Your task to perform on an android device: Go to Yahoo.com Image 0: 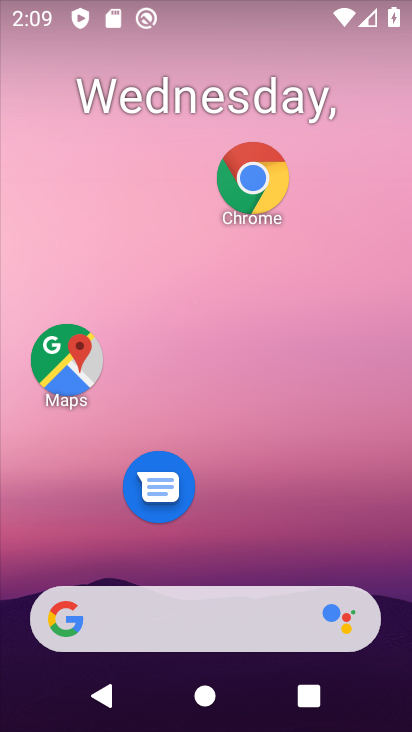
Step 0: click (244, 177)
Your task to perform on an android device: Go to Yahoo.com Image 1: 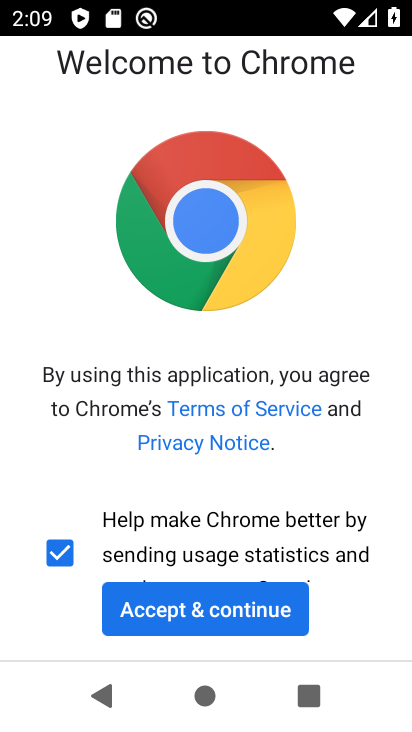
Step 1: click (169, 617)
Your task to perform on an android device: Go to Yahoo.com Image 2: 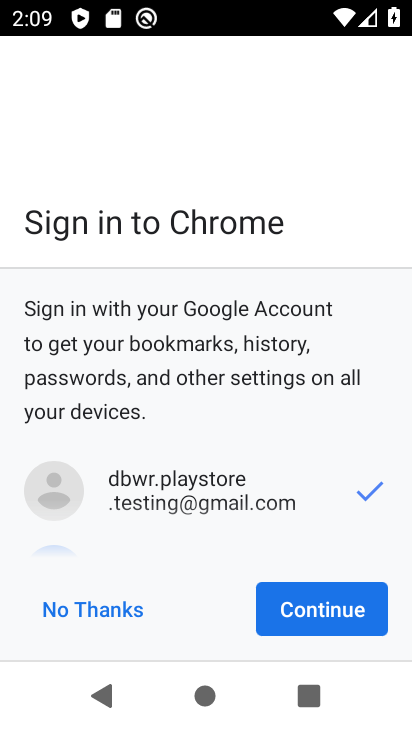
Step 2: click (311, 618)
Your task to perform on an android device: Go to Yahoo.com Image 3: 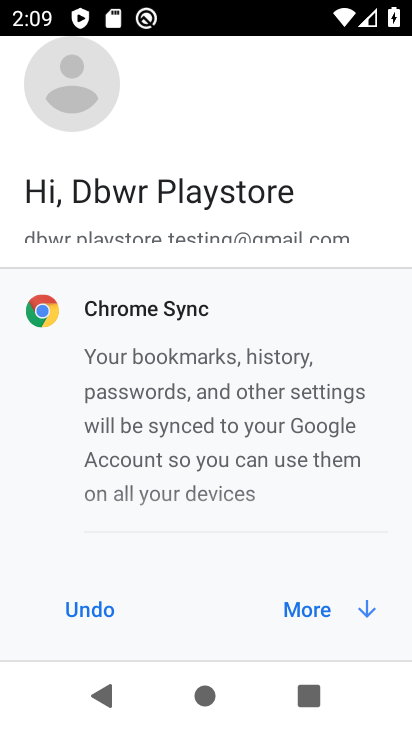
Step 3: click (301, 597)
Your task to perform on an android device: Go to Yahoo.com Image 4: 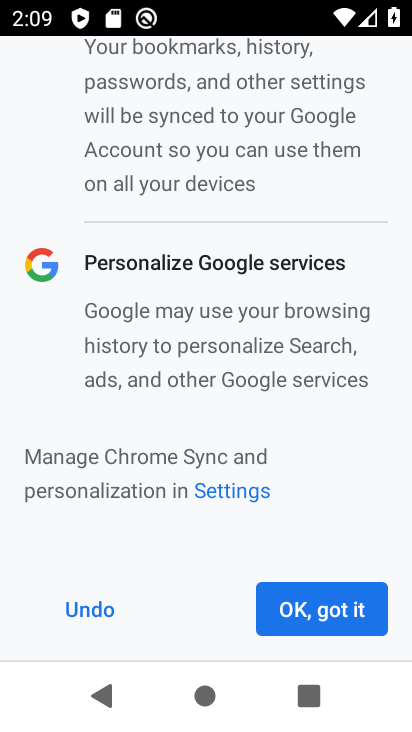
Step 4: click (301, 597)
Your task to perform on an android device: Go to Yahoo.com Image 5: 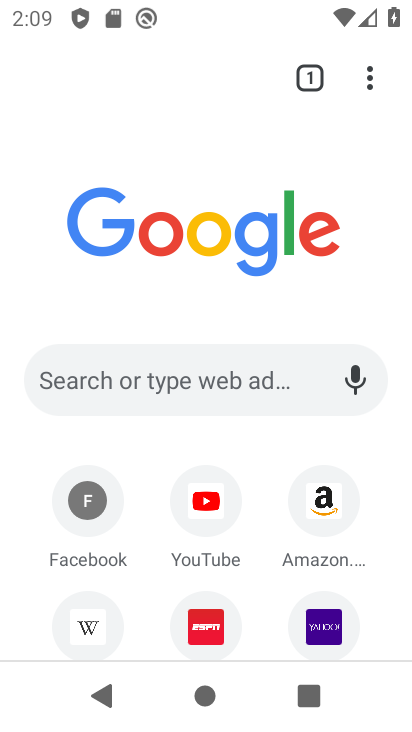
Step 5: click (188, 373)
Your task to perform on an android device: Go to Yahoo.com Image 6: 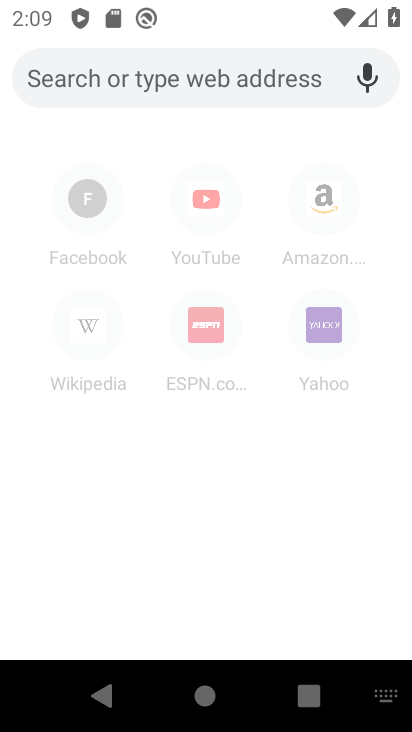
Step 6: type "yahoo.com"
Your task to perform on an android device: Go to Yahoo.com Image 7: 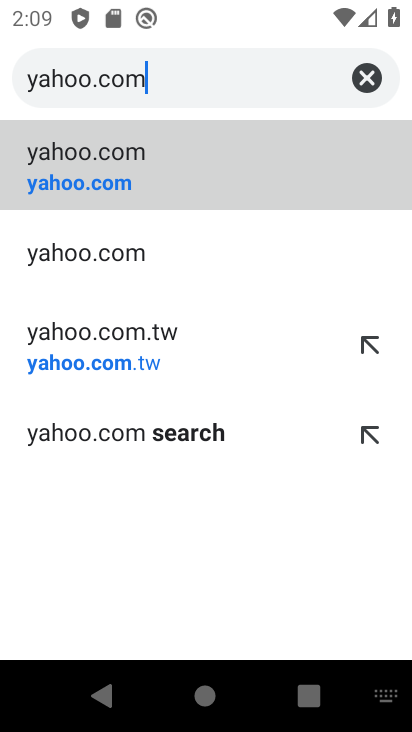
Step 7: click (90, 158)
Your task to perform on an android device: Go to Yahoo.com Image 8: 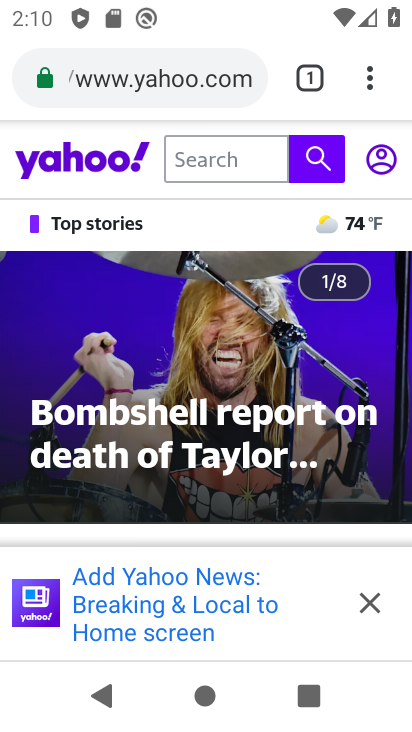
Step 8: task complete